Your task to perform on an android device: turn on priority inbox in the gmail app Image 0: 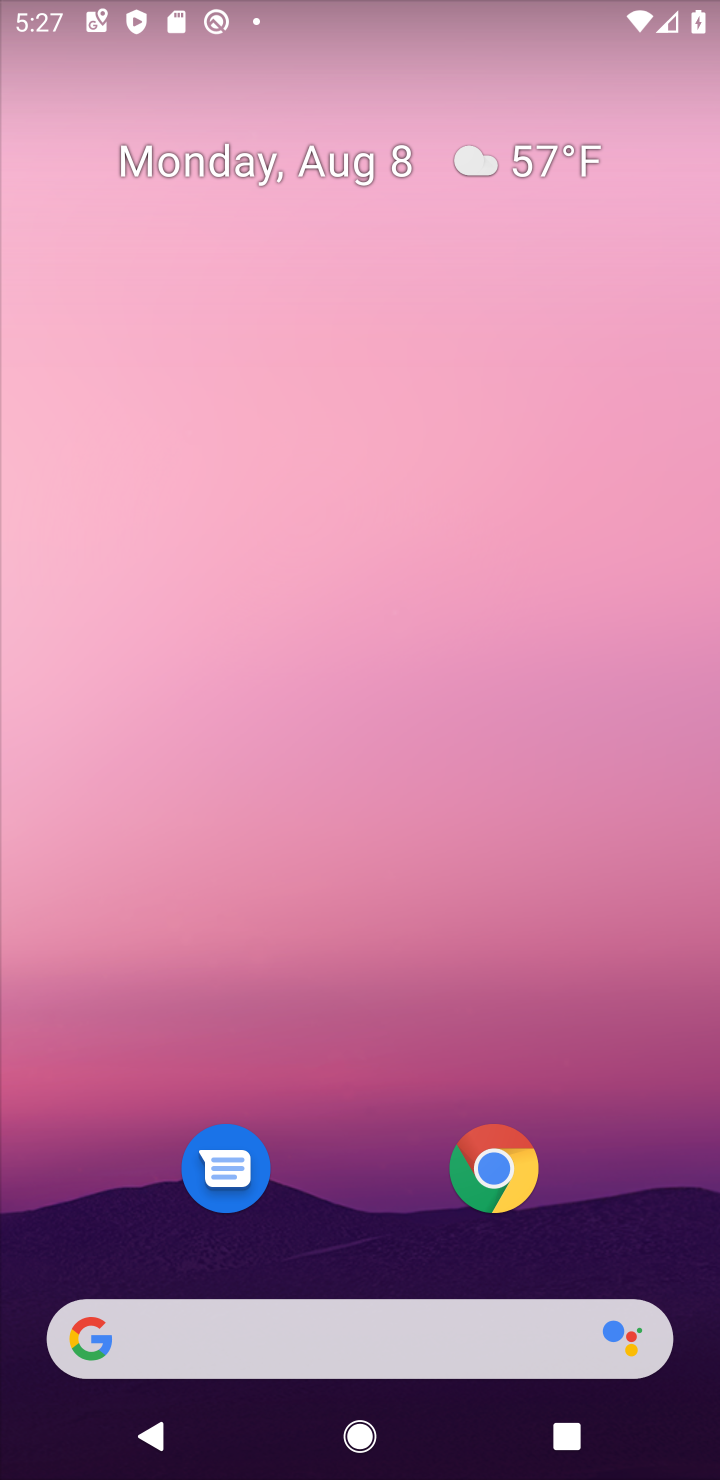
Step 0: drag from (368, 887) to (414, 142)
Your task to perform on an android device: turn on priority inbox in the gmail app Image 1: 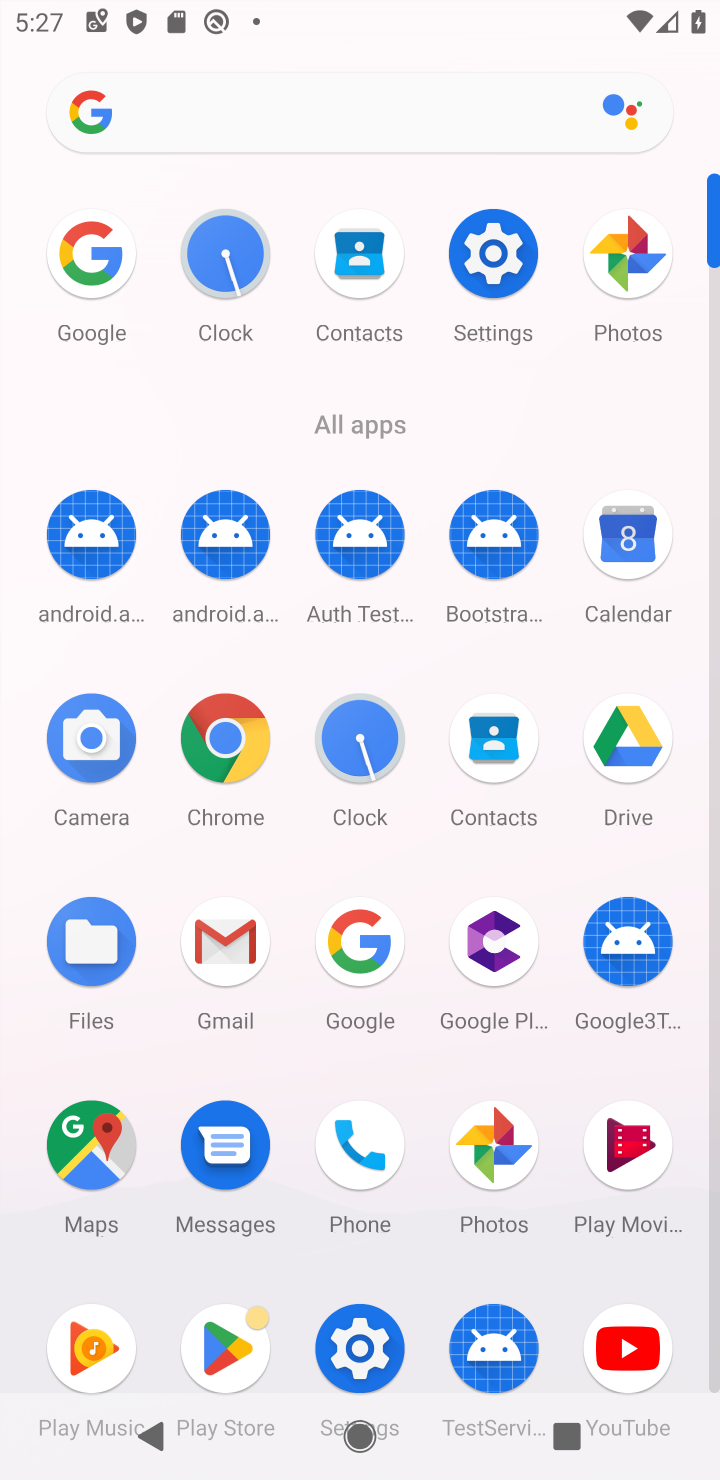
Step 1: click (494, 270)
Your task to perform on an android device: turn on priority inbox in the gmail app Image 2: 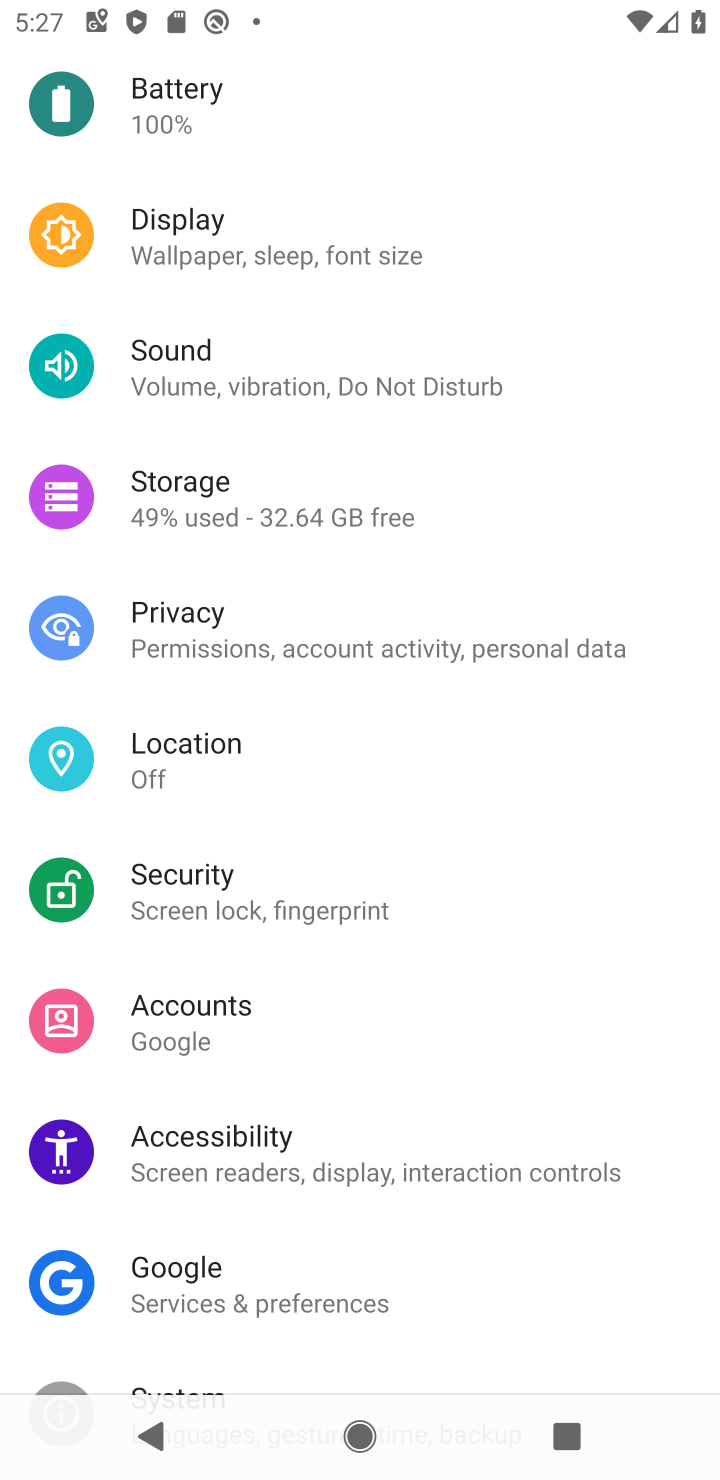
Step 2: press home button
Your task to perform on an android device: turn on priority inbox in the gmail app Image 3: 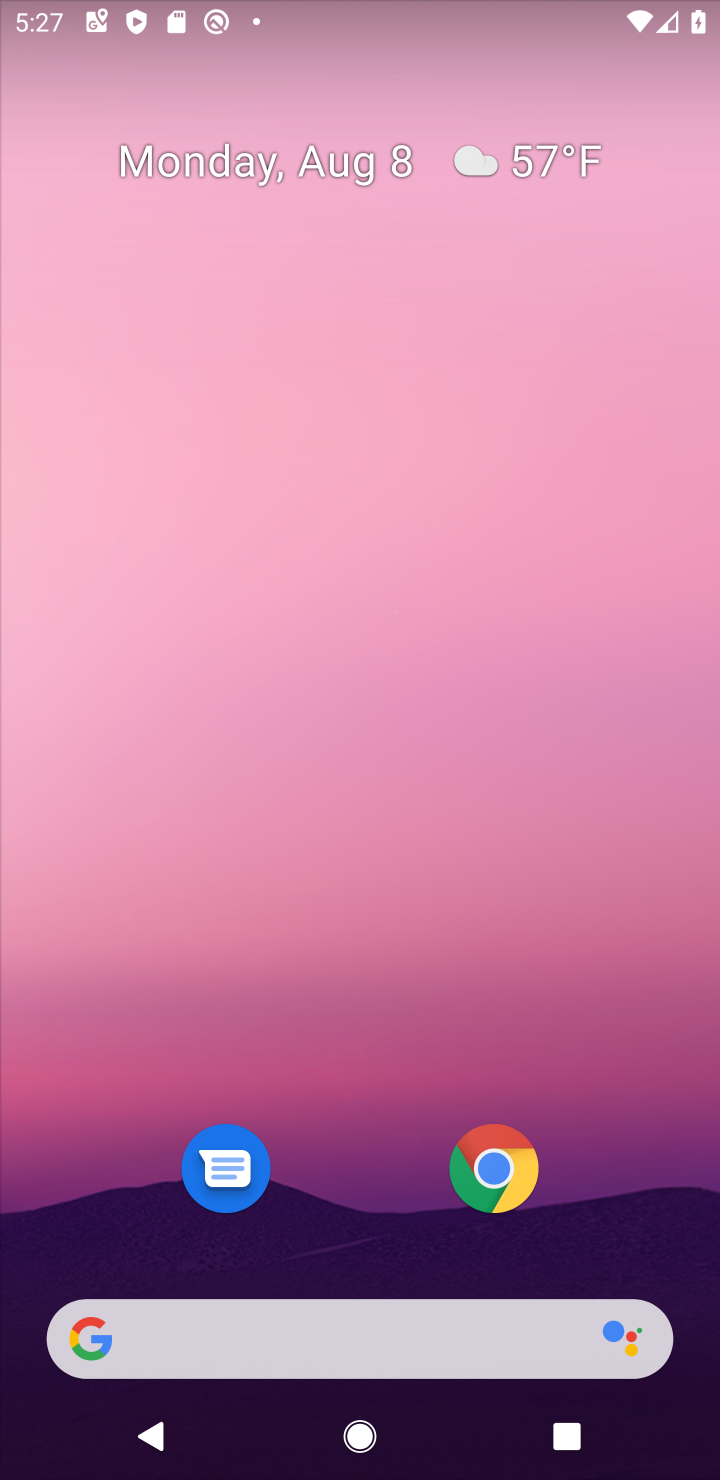
Step 3: drag from (353, 1361) to (230, 113)
Your task to perform on an android device: turn on priority inbox in the gmail app Image 4: 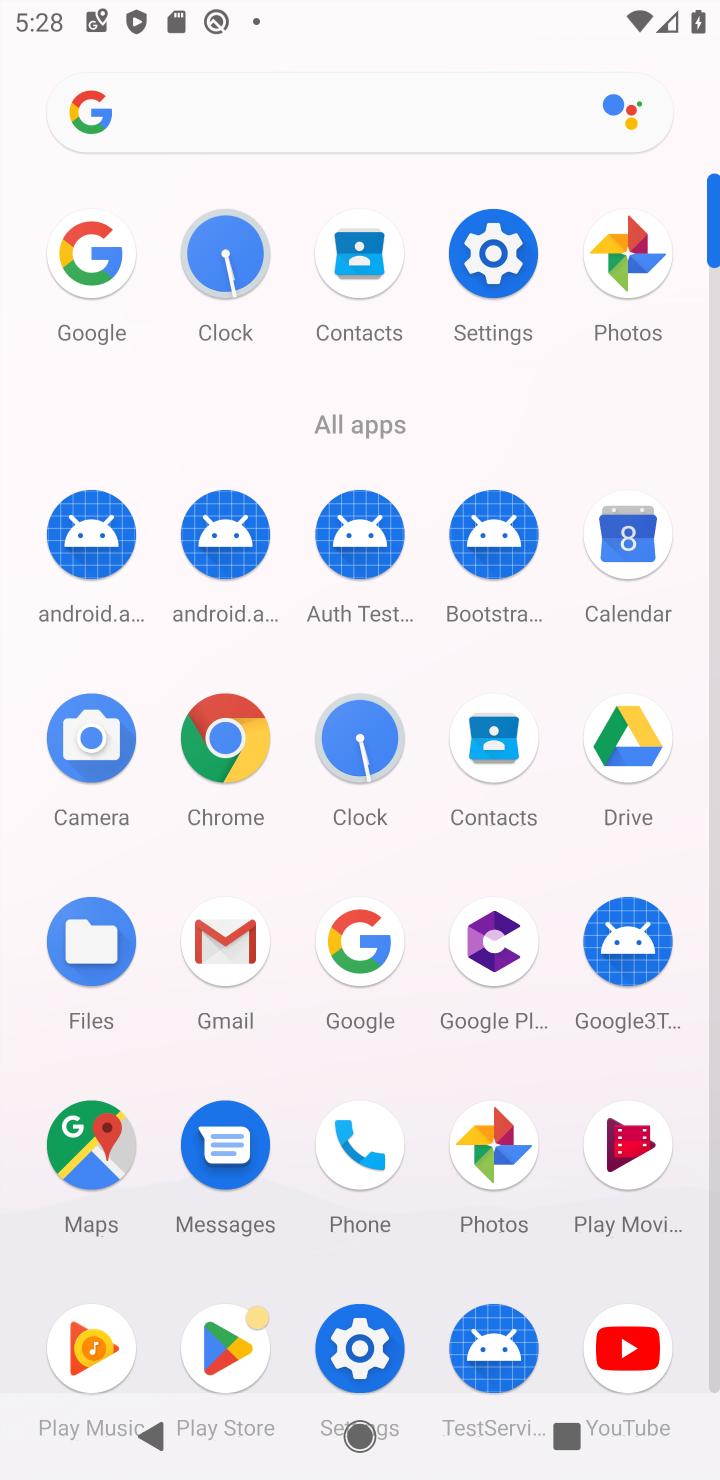
Step 4: click (230, 958)
Your task to perform on an android device: turn on priority inbox in the gmail app Image 5: 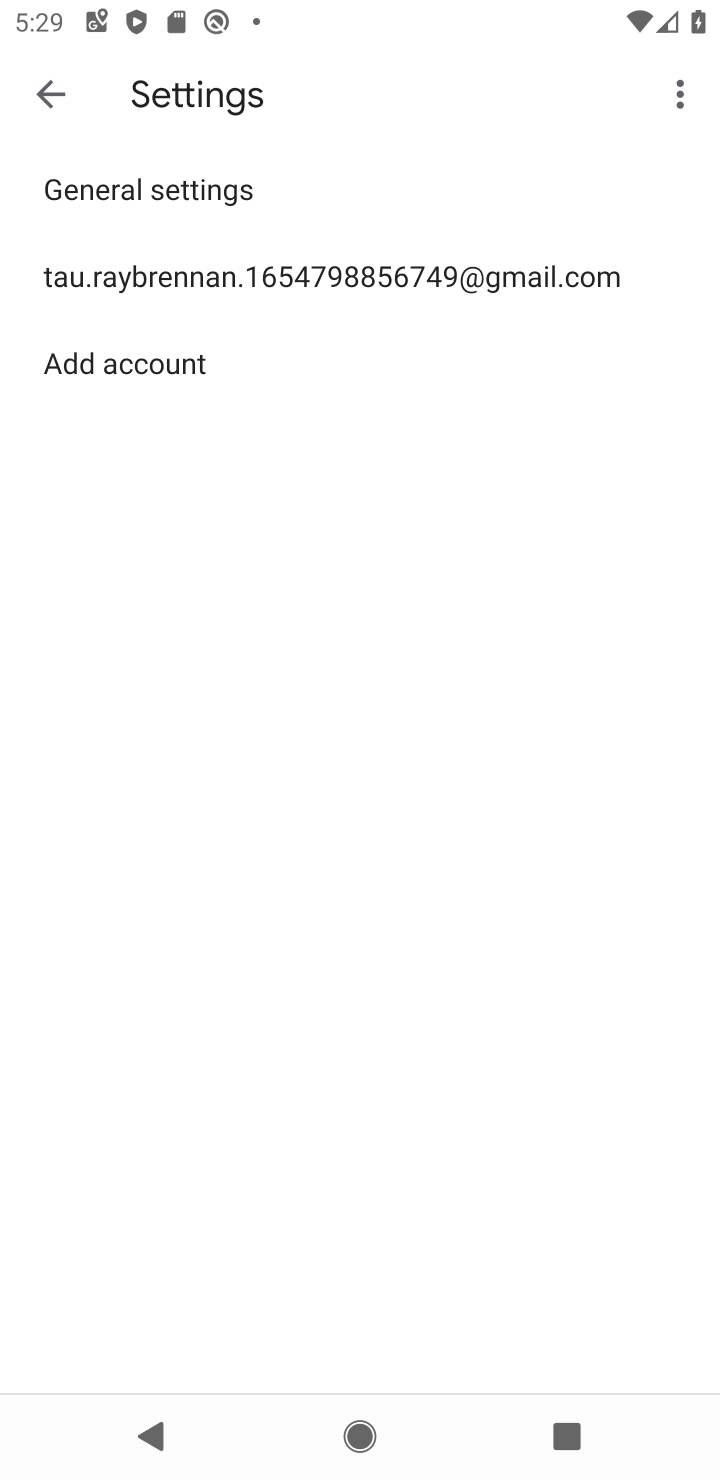
Step 5: click (189, 282)
Your task to perform on an android device: turn on priority inbox in the gmail app Image 6: 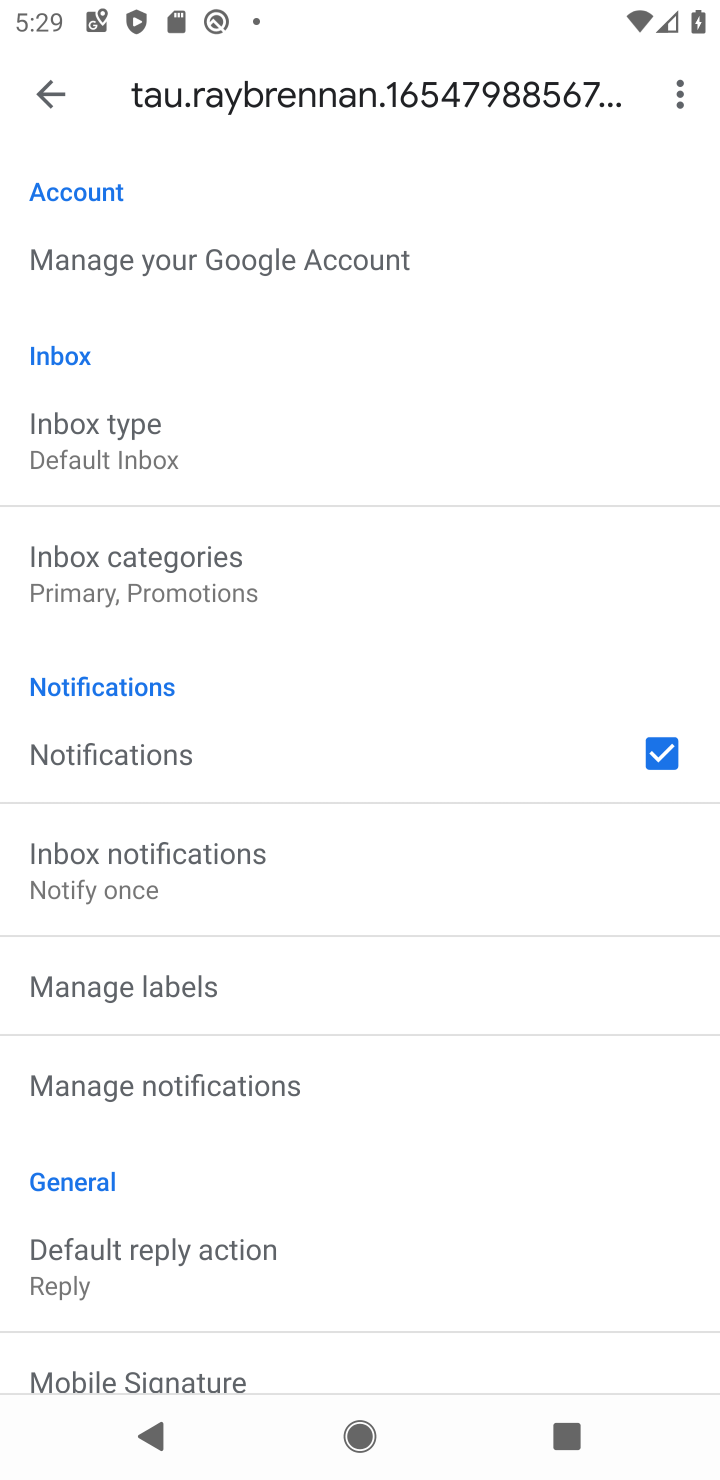
Step 6: click (184, 444)
Your task to perform on an android device: turn on priority inbox in the gmail app Image 7: 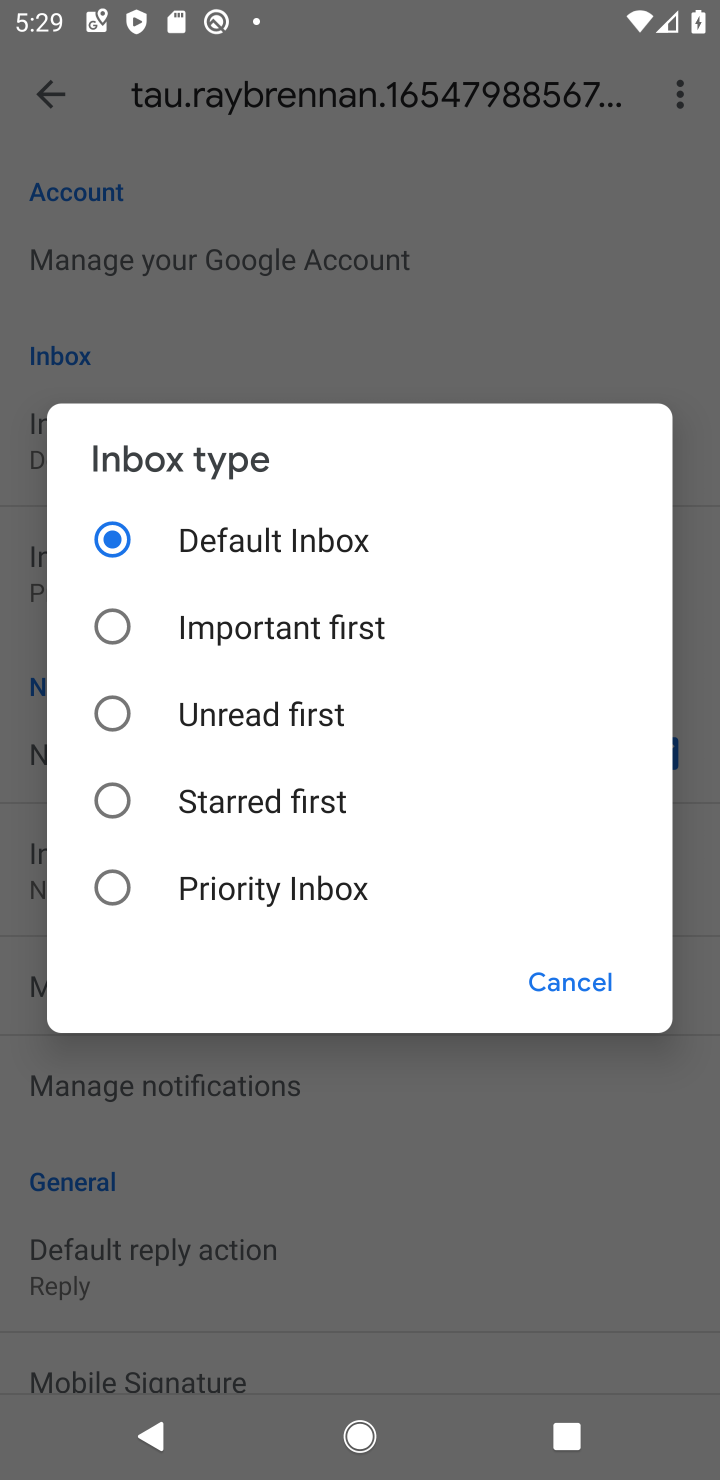
Step 7: click (273, 926)
Your task to perform on an android device: turn on priority inbox in the gmail app Image 8: 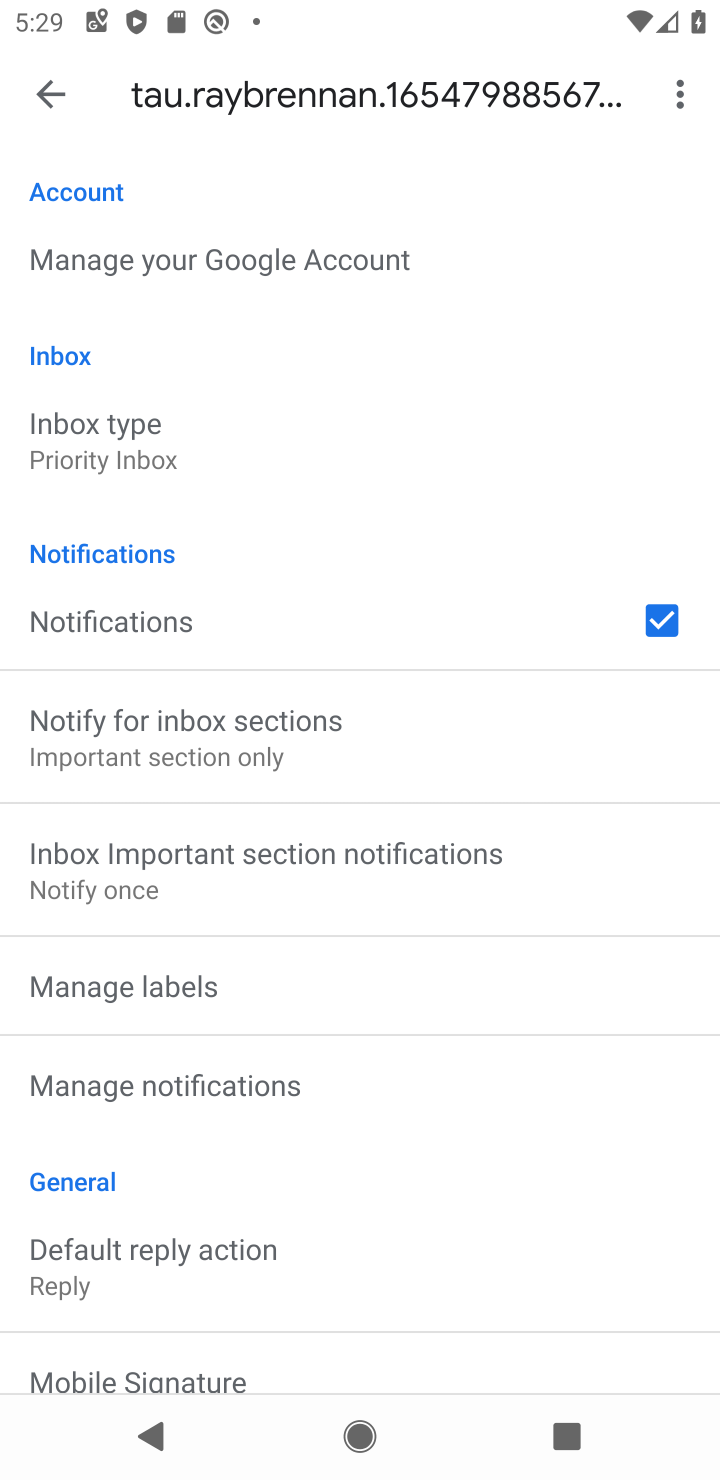
Step 8: task complete